Your task to perform on an android device: turn on translation in the chrome app Image 0: 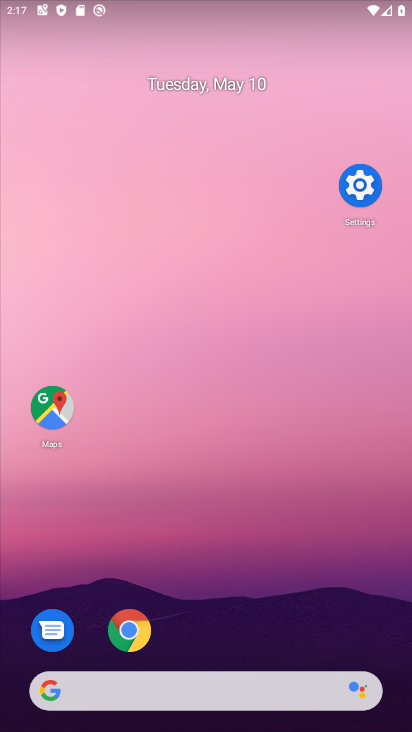
Step 0: drag from (286, 395) to (182, 2)
Your task to perform on an android device: turn on translation in the chrome app Image 1: 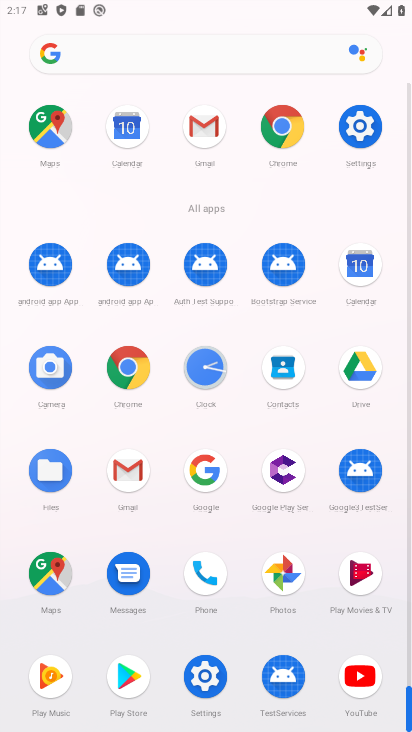
Step 1: click (276, 133)
Your task to perform on an android device: turn on translation in the chrome app Image 2: 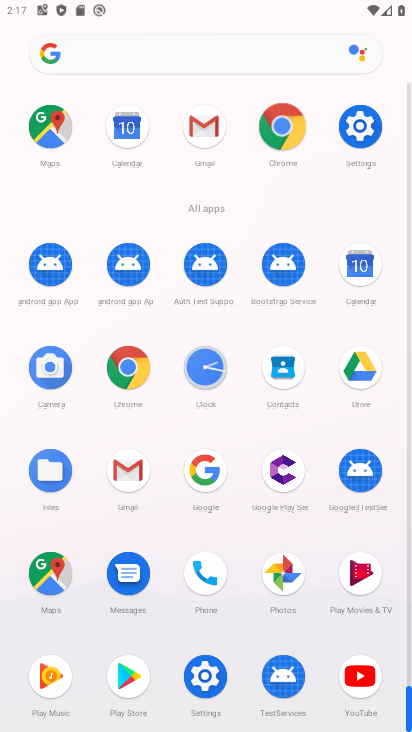
Step 2: click (276, 133)
Your task to perform on an android device: turn on translation in the chrome app Image 3: 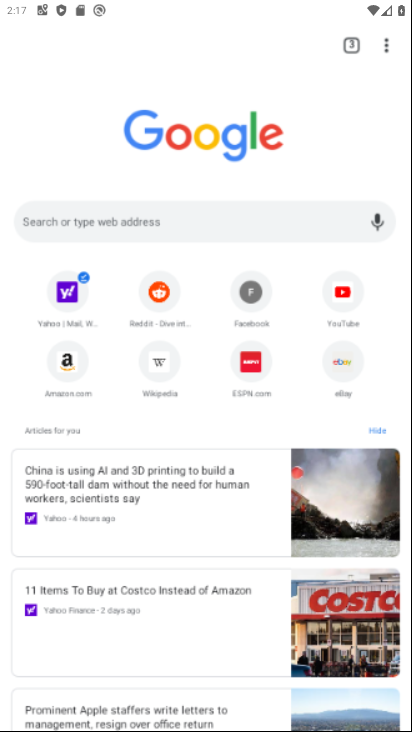
Step 3: click (275, 132)
Your task to perform on an android device: turn on translation in the chrome app Image 4: 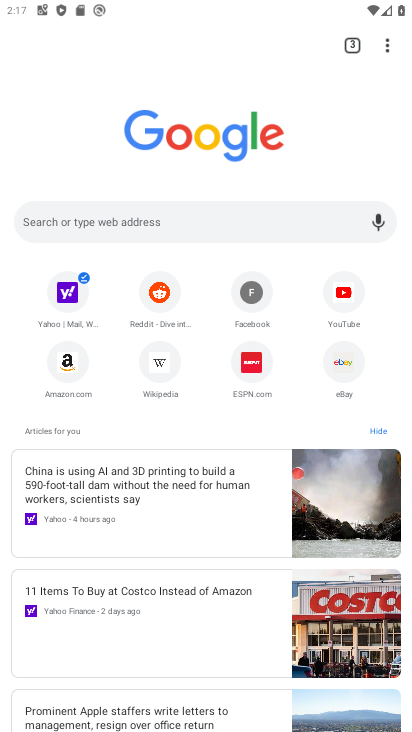
Step 4: drag from (202, 488) to (170, 102)
Your task to perform on an android device: turn on translation in the chrome app Image 5: 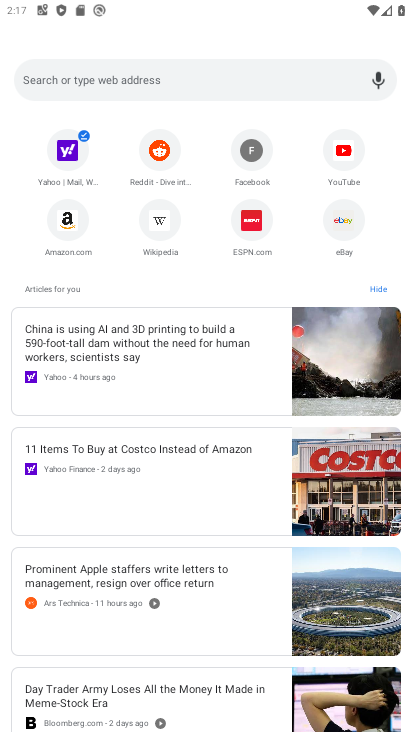
Step 5: drag from (250, 128) to (307, 521)
Your task to perform on an android device: turn on translation in the chrome app Image 6: 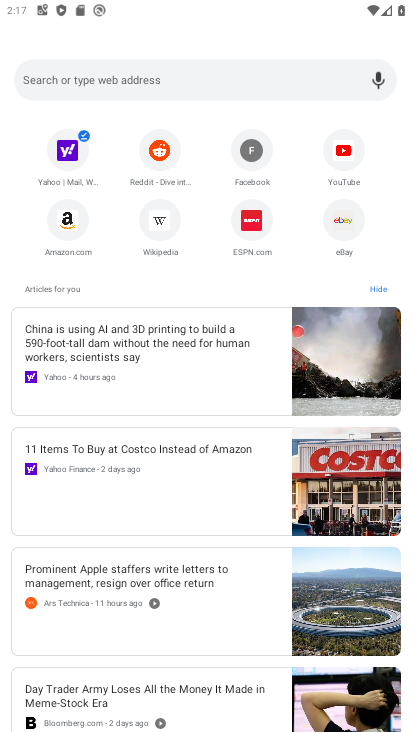
Step 6: drag from (225, 221) to (240, 546)
Your task to perform on an android device: turn on translation in the chrome app Image 7: 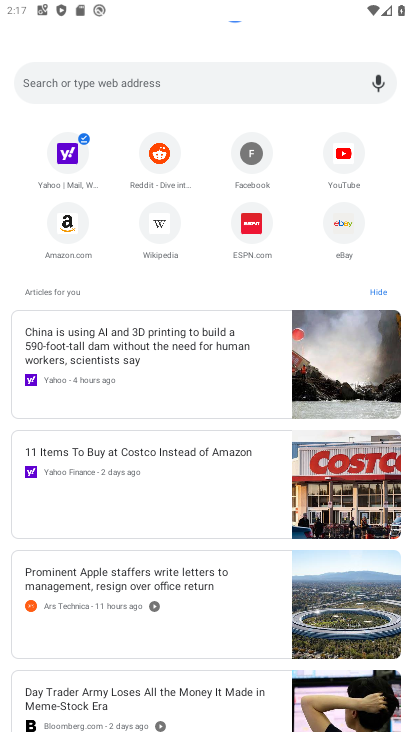
Step 7: drag from (276, 132) to (277, 480)
Your task to perform on an android device: turn on translation in the chrome app Image 8: 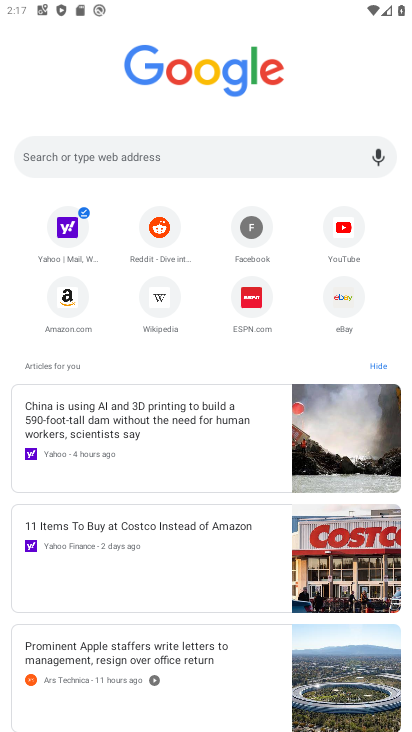
Step 8: drag from (187, 120) to (253, 486)
Your task to perform on an android device: turn on translation in the chrome app Image 9: 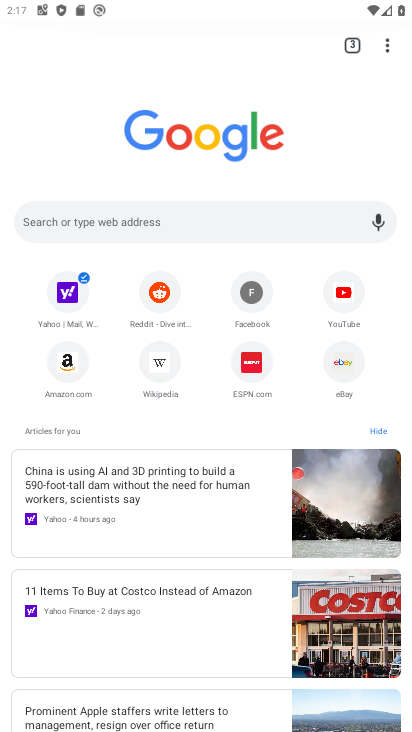
Step 9: drag from (356, 42) to (405, 453)
Your task to perform on an android device: turn on translation in the chrome app Image 10: 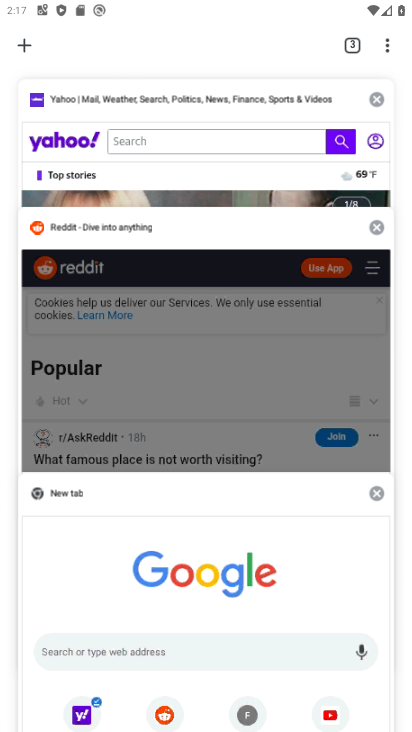
Step 10: drag from (383, 43) to (243, 41)
Your task to perform on an android device: turn on translation in the chrome app Image 11: 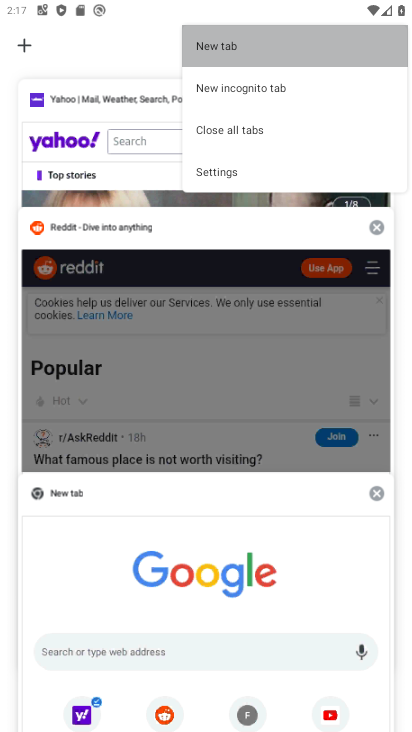
Step 11: click (243, 41)
Your task to perform on an android device: turn on translation in the chrome app Image 12: 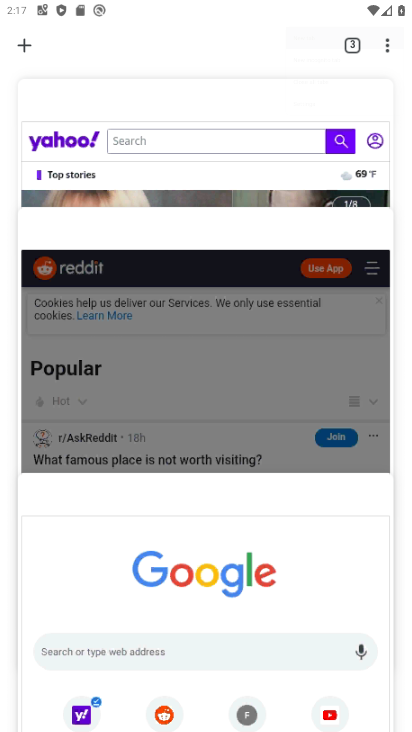
Step 12: click (244, 41)
Your task to perform on an android device: turn on translation in the chrome app Image 13: 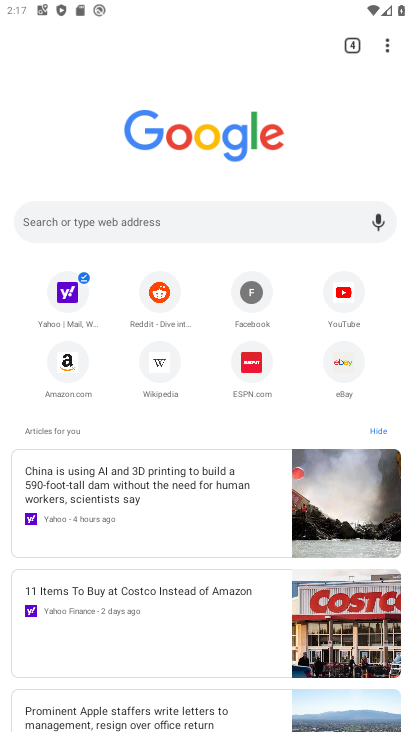
Step 13: drag from (386, 48) to (232, 421)
Your task to perform on an android device: turn on translation in the chrome app Image 14: 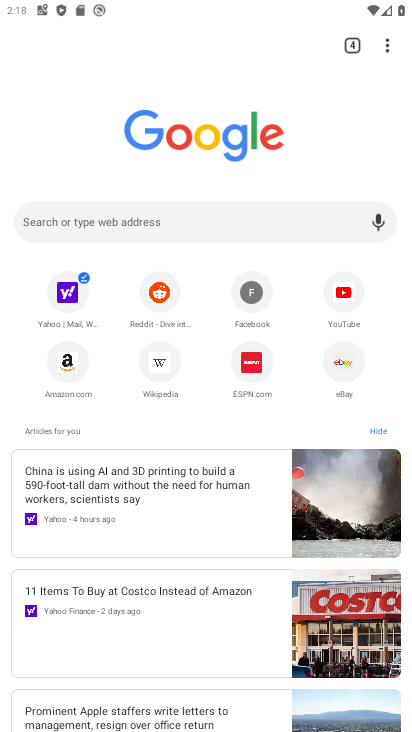
Step 14: click (228, 435)
Your task to perform on an android device: turn on translation in the chrome app Image 15: 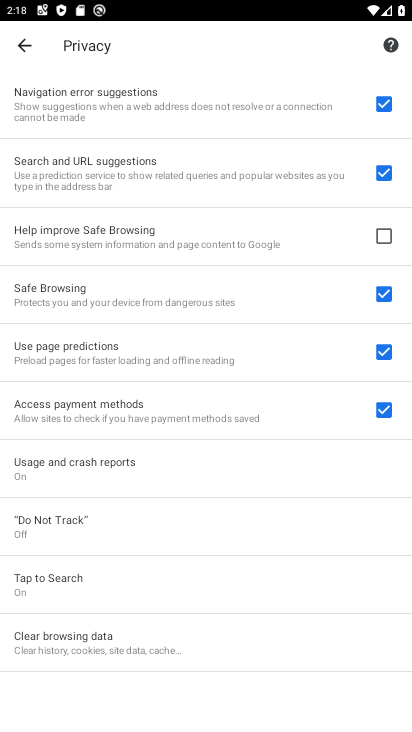
Step 15: click (22, 44)
Your task to perform on an android device: turn on translation in the chrome app Image 16: 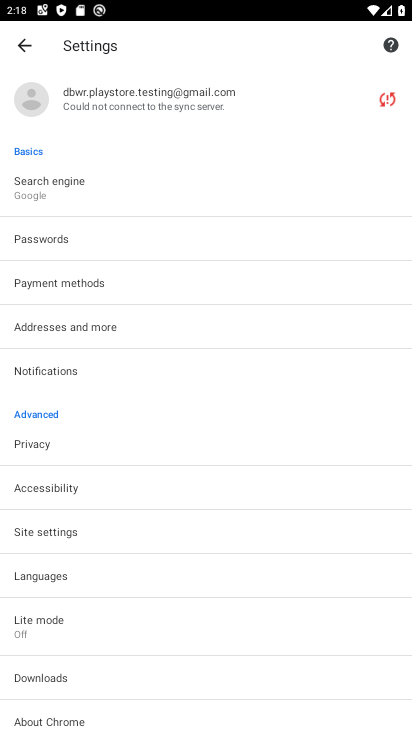
Step 16: click (35, 572)
Your task to perform on an android device: turn on translation in the chrome app Image 17: 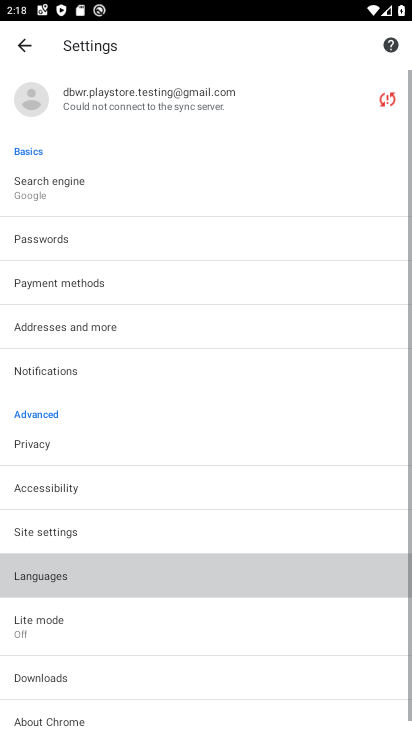
Step 17: click (35, 575)
Your task to perform on an android device: turn on translation in the chrome app Image 18: 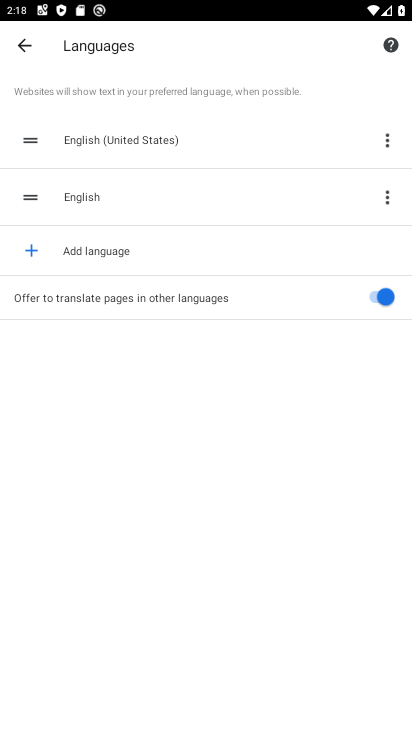
Step 18: click (387, 291)
Your task to perform on an android device: turn on translation in the chrome app Image 19: 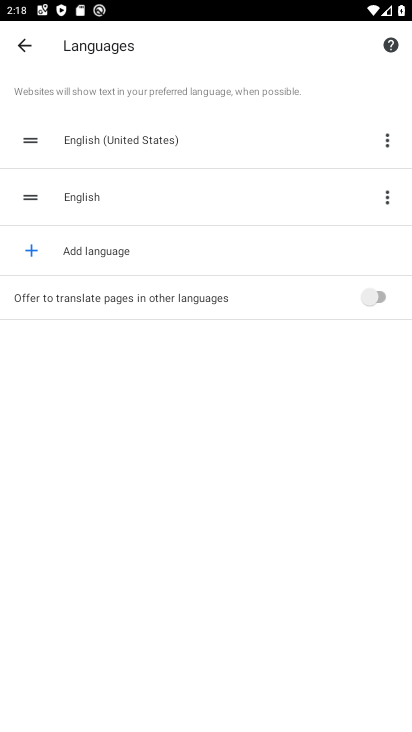
Step 19: click (366, 291)
Your task to perform on an android device: turn on translation in the chrome app Image 20: 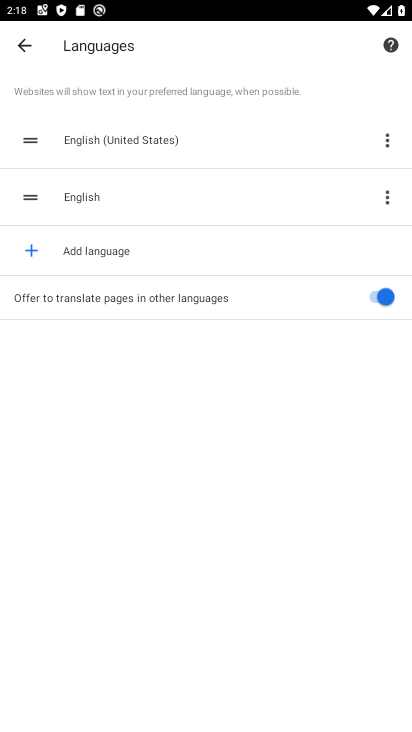
Step 20: task complete